Your task to perform on an android device: clear history in the chrome app Image 0: 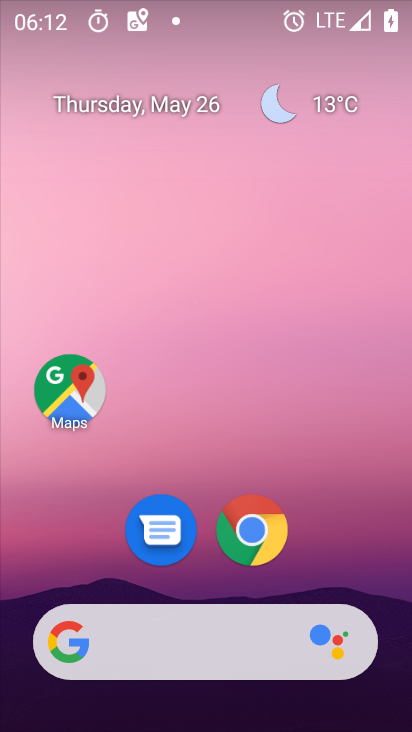
Step 0: drag from (346, 618) to (367, 39)
Your task to perform on an android device: clear history in the chrome app Image 1: 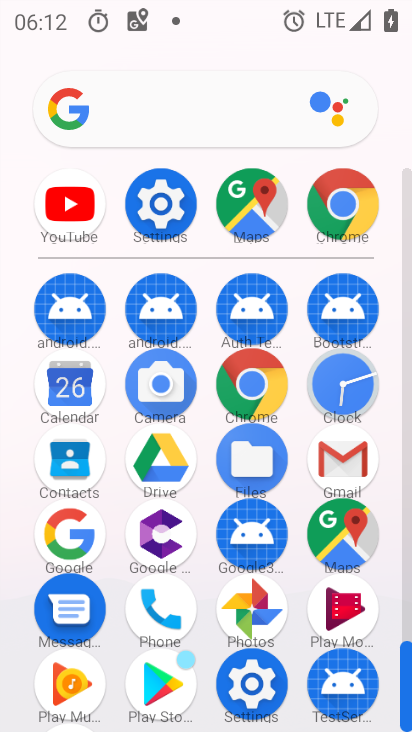
Step 1: click (232, 371)
Your task to perform on an android device: clear history in the chrome app Image 2: 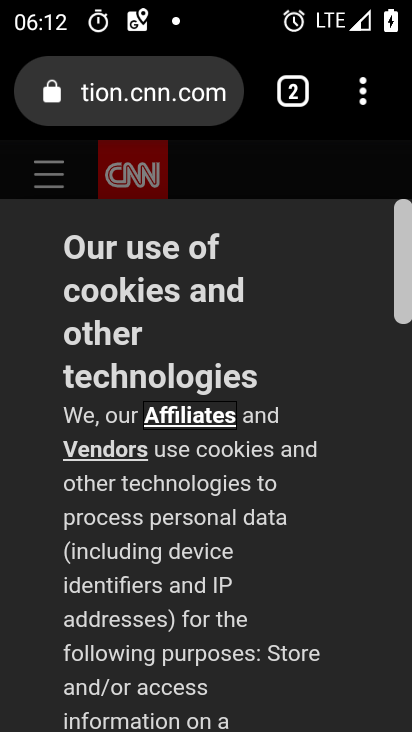
Step 2: drag from (361, 88) to (175, 556)
Your task to perform on an android device: clear history in the chrome app Image 3: 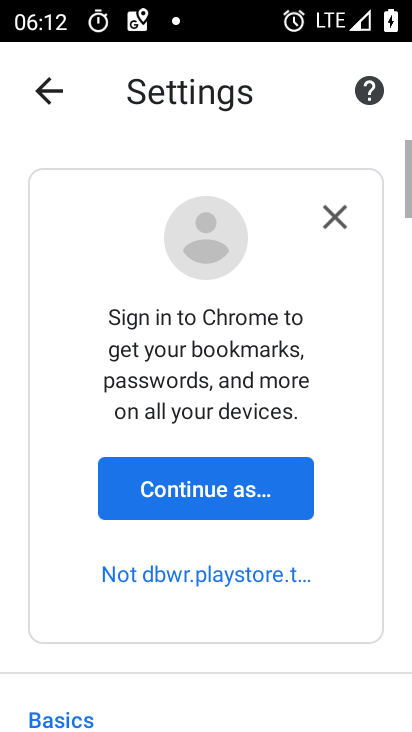
Step 3: drag from (274, 635) to (261, 72)
Your task to perform on an android device: clear history in the chrome app Image 4: 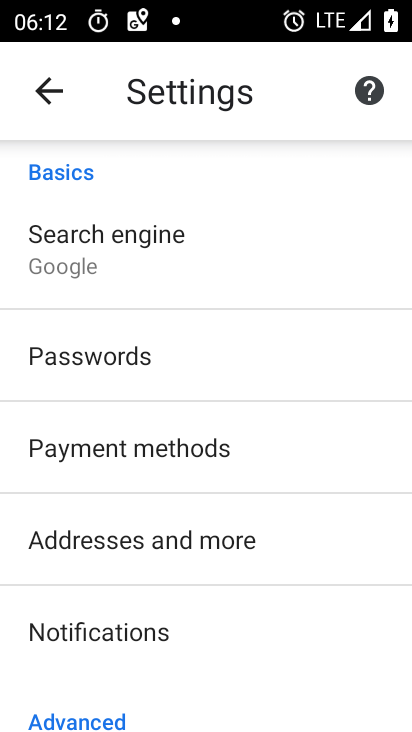
Step 4: drag from (171, 654) to (218, 184)
Your task to perform on an android device: clear history in the chrome app Image 5: 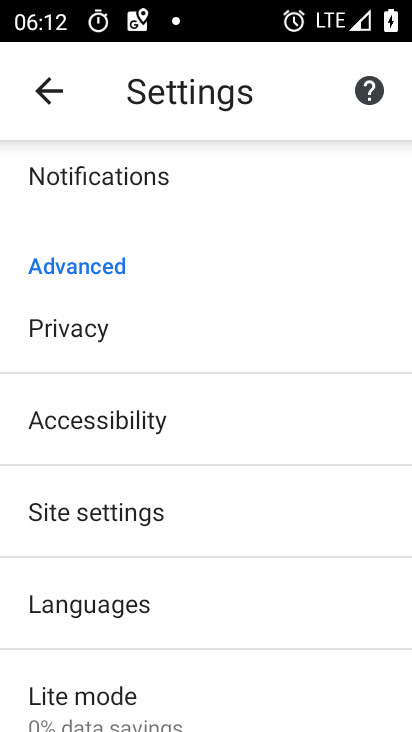
Step 5: click (152, 334)
Your task to perform on an android device: clear history in the chrome app Image 6: 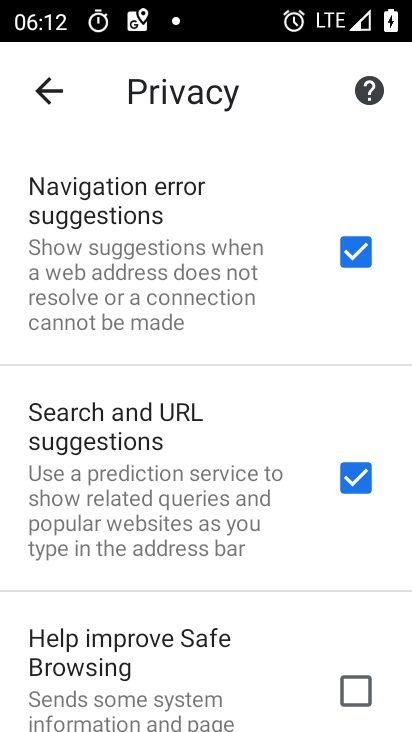
Step 6: drag from (226, 626) to (271, 45)
Your task to perform on an android device: clear history in the chrome app Image 7: 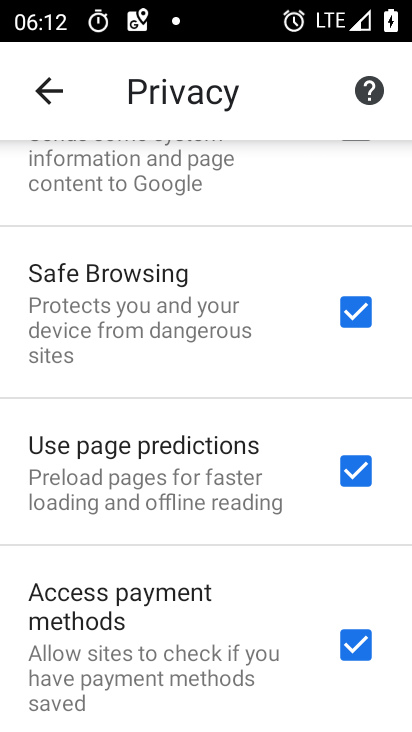
Step 7: drag from (249, 627) to (225, 142)
Your task to perform on an android device: clear history in the chrome app Image 8: 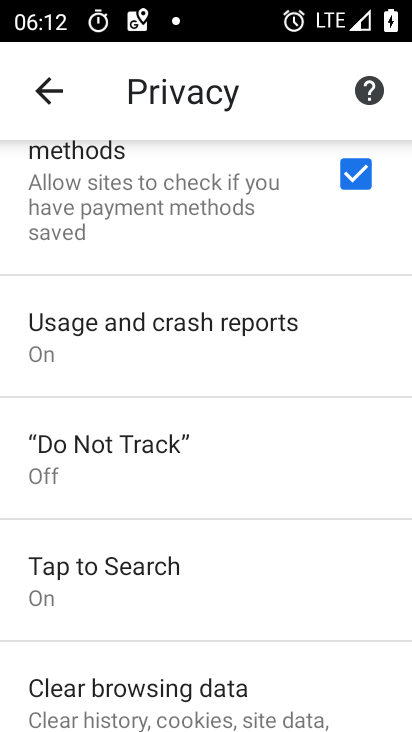
Step 8: drag from (224, 660) to (251, 62)
Your task to perform on an android device: clear history in the chrome app Image 9: 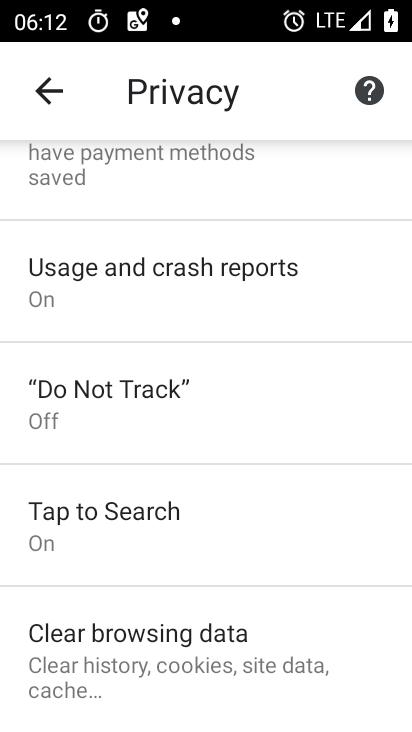
Step 9: click (208, 666)
Your task to perform on an android device: clear history in the chrome app Image 10: 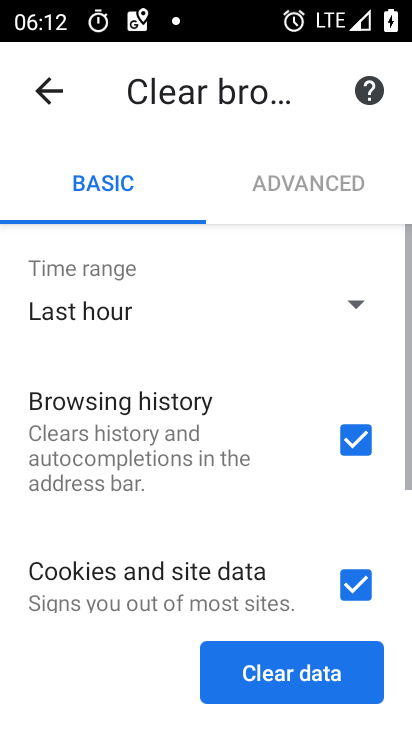
Step 10: click (282, 649)
Your task to perform on an android device: clear history in the chrome app Image 11: 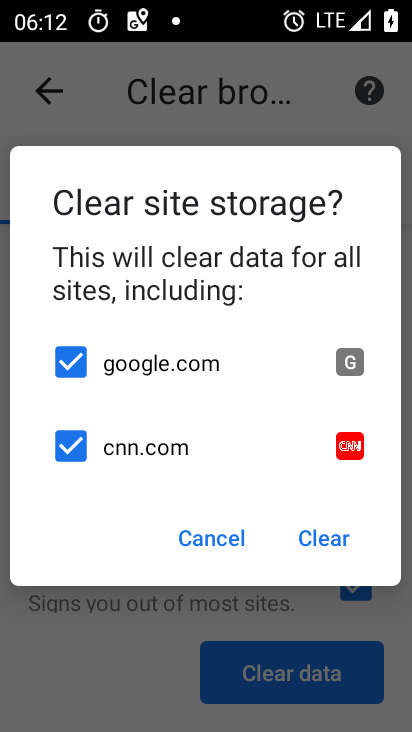
Step 11: click (320, 539)
Your task to perform on an android device: clear history in the chrome app Image 12: 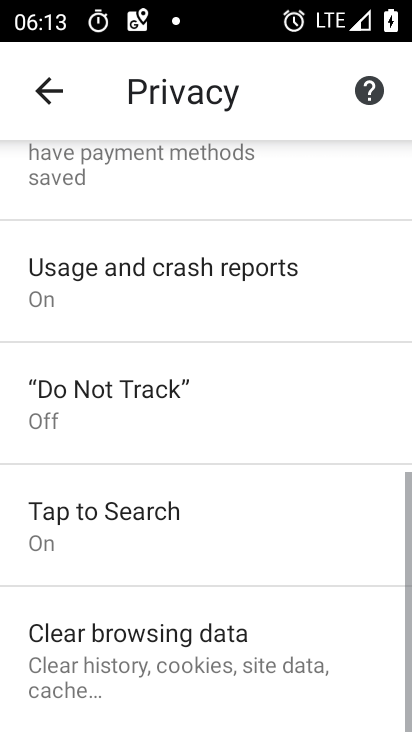
Step 12: task complete